Your task to perform on an android device: toggle improve location accuracy Image 0: 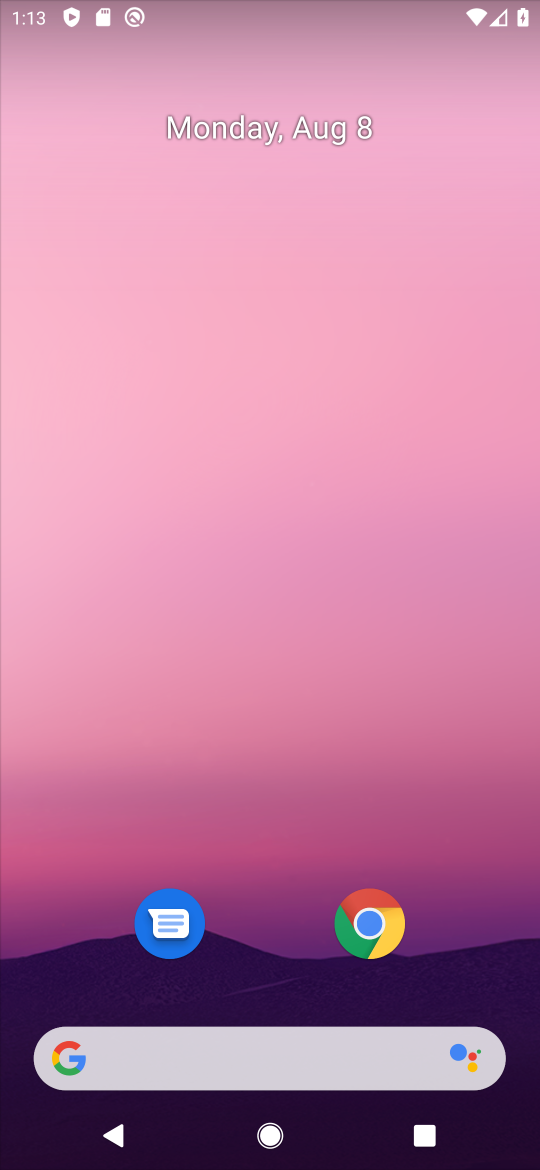
Step 0: drag from (251, 844) to (366, 153)
Your task to perform on an android device: toggle improve location accuracy Image 1: 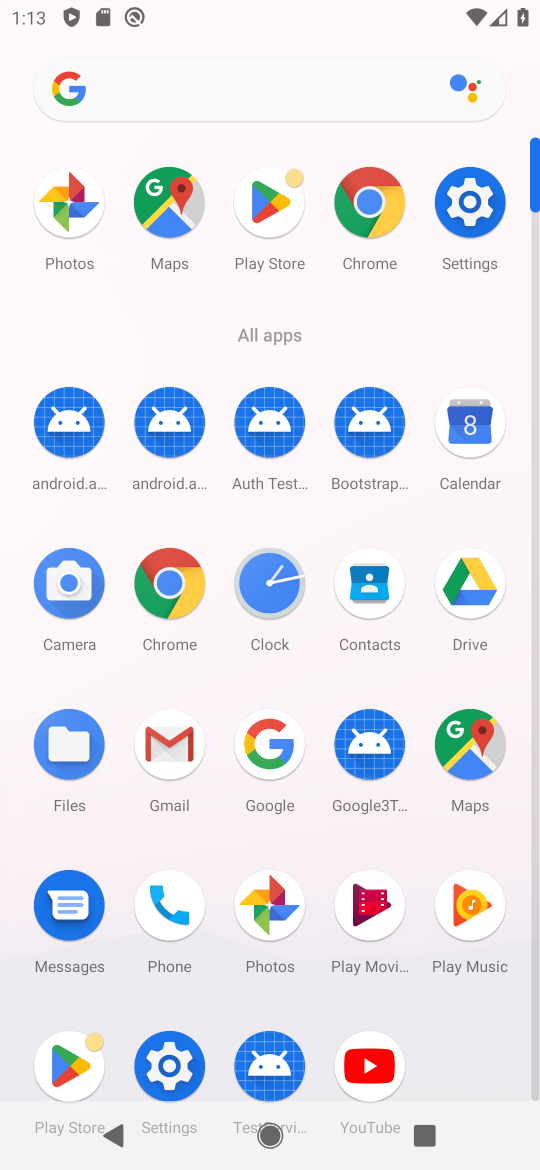
Step 1: click (478, 200)
Your task to perform on an android device: toggle improve location accuracy Image 2: 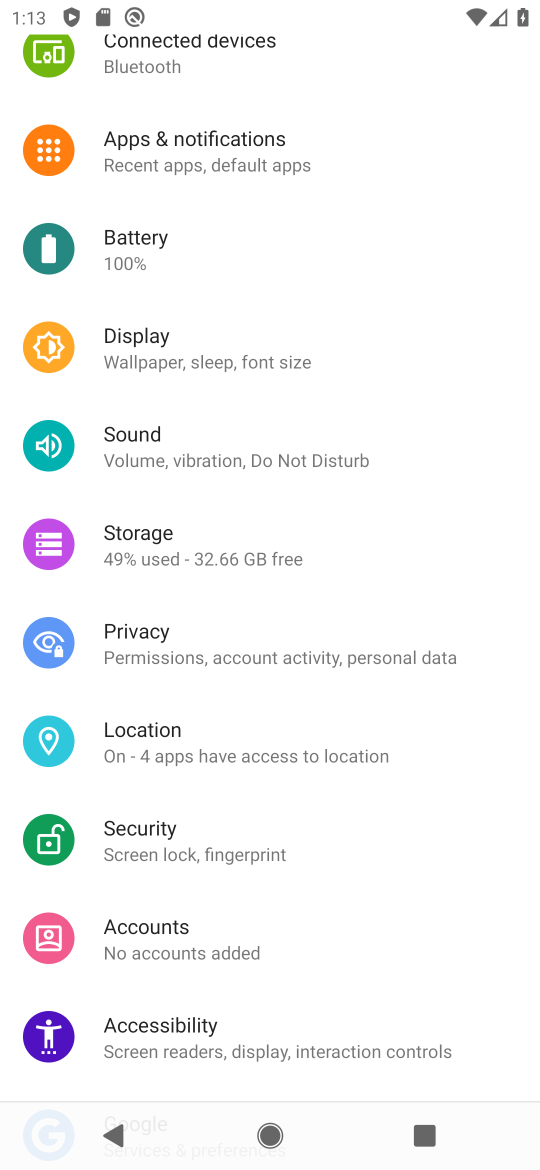
Step 2: click (300, 757)
Your task to perform on an android device: toggle improve location accuracy Image 3: 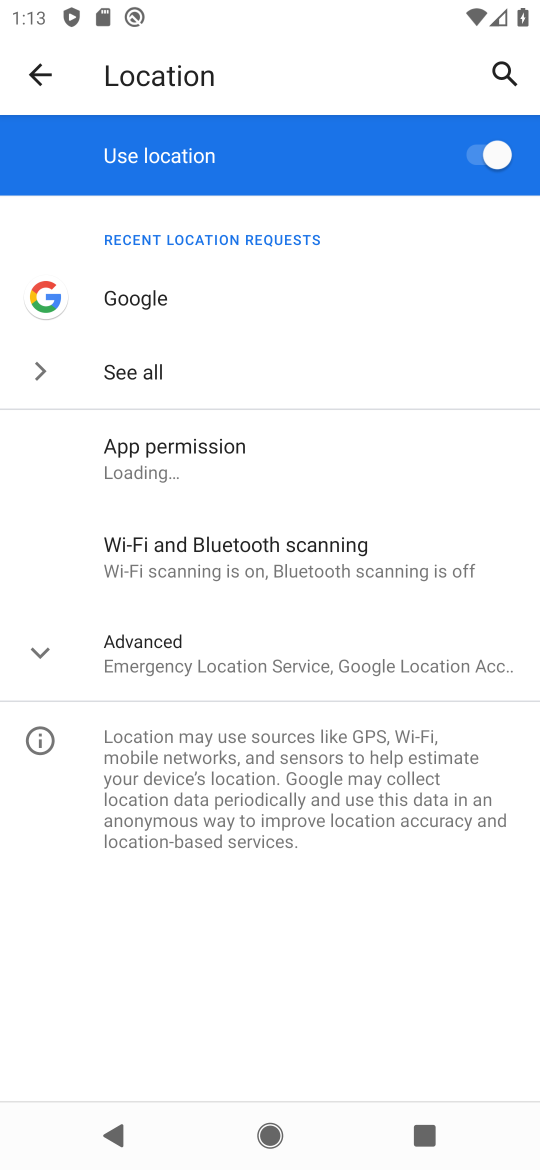
Step 3: task complete